Your task to perform on an android device: turn on data saver in the chrome app Image 0: 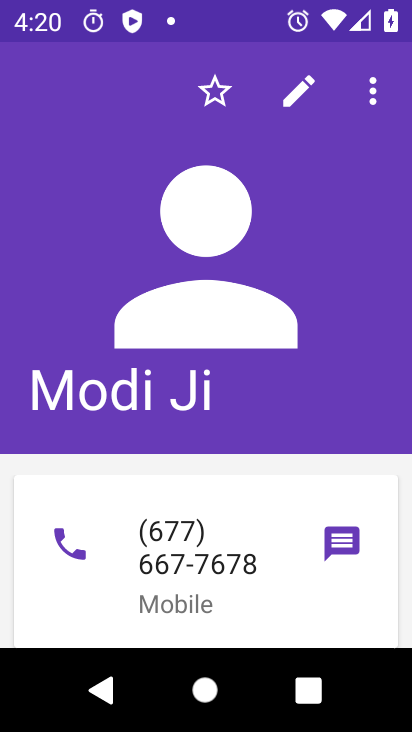
Step 0: press home button
Your task to perform on an android device: turn on data saver in the chrome app Image 1: 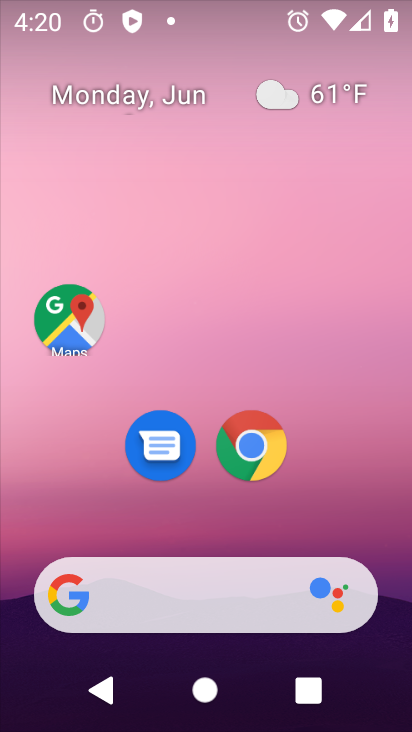
Step 1: click (241, 460)
Your task to perform on an android device: turn on data saver in the chrome app Image 2: 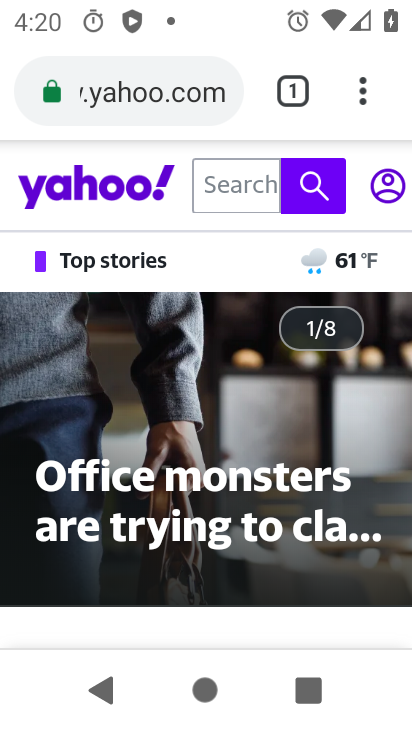
Step 2: click (362, 106)
Your task to perform on an android device: turn on data saver in the chrome app Image 3: 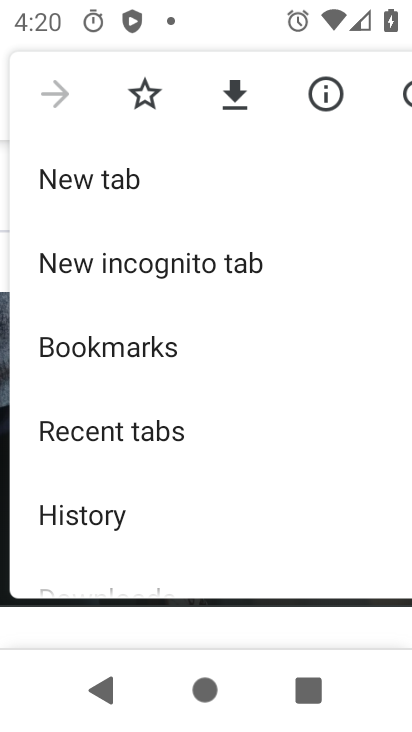
Step 3: drag from (182, 492) to (194, 279)
Your task to perform on an android device: turn on data saver in the chrome app Image 4: 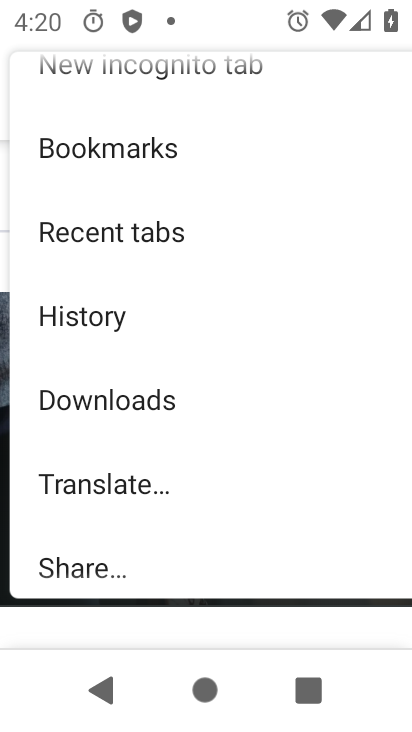
Step 4: drag from (120, 525) to (152, 286)
Your task to perform on an android device: turn on data saver in the chrome app Image 5: 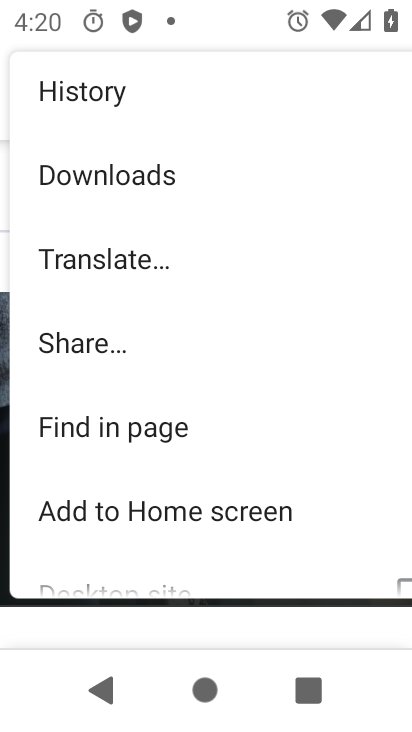
Step 5: drag from (137, 472) to (166, 290)
Your task to perform on an android device: turn on data saver in the chrome app Image 6: 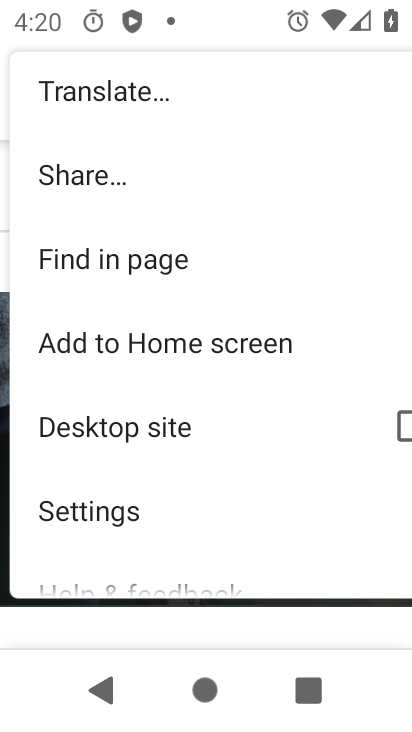
Step 6: click (136, 526)
Your task to perform on an android device: turn on data saver in the chrome app Image 7: 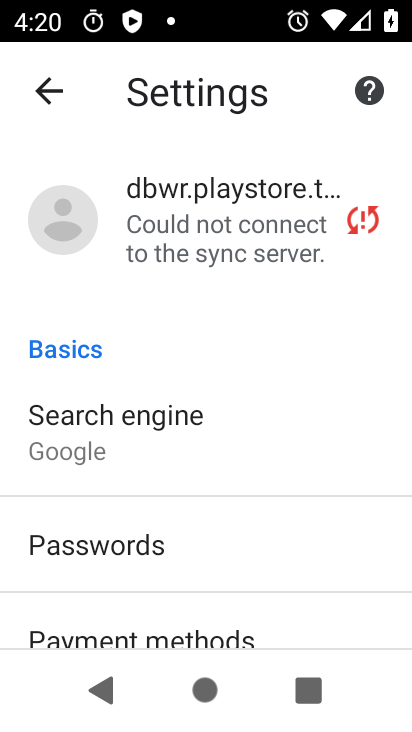
Step 7: drag from (177, 581) to (285, 190)
Your task to perform on an android device: turn on data saver in the chrome app Image 8: 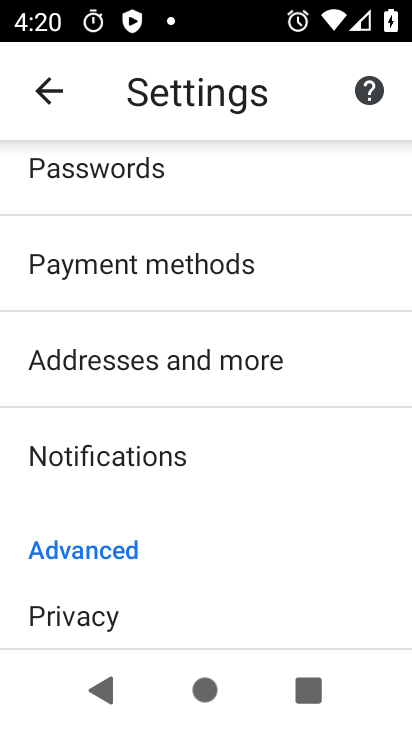
Step 8: drag from (213, 486) to (272, 7)
Your task to perform on an android device: turn on data saver in the chrome app Image 9: 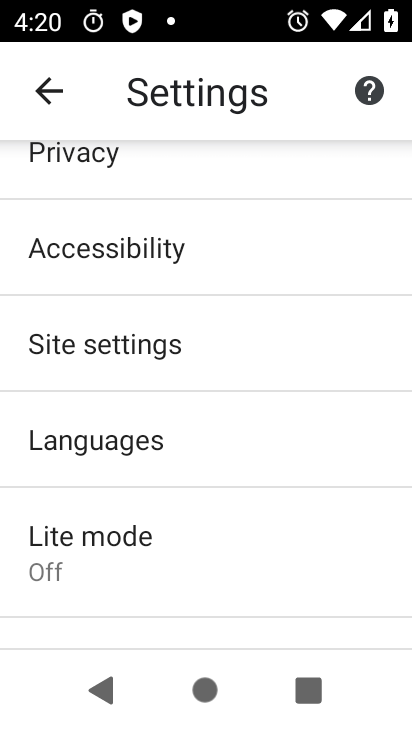
Step 9: click (127, 346)
Your task to perform on an android device: turn on data saver in the chrome app Image 10: 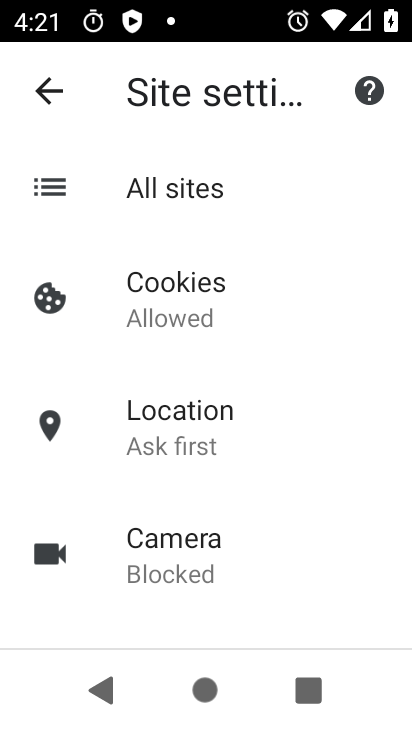
Step 10: click (47, 105)
Your task to perform on an android device: turn on data saver in the chrome app Image 11: 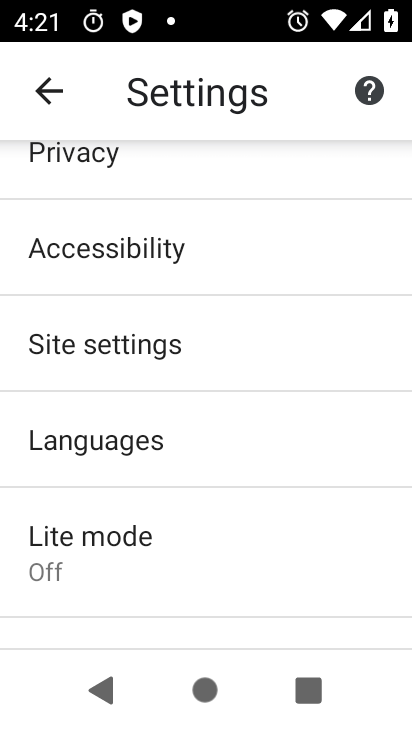
Step 11: click (128, 555)
Your task to perform on an android device: turn on data saver in the chrome app Image 12: 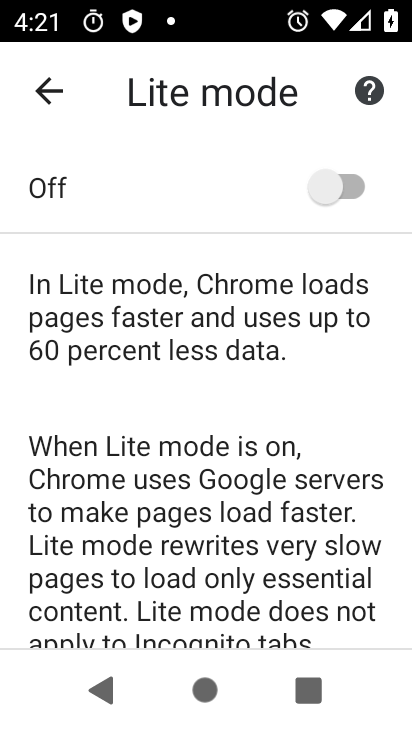
Step 12: click (352, 188)
Your task to perform on an android device: turn on data saver in the chrome app Image 13: 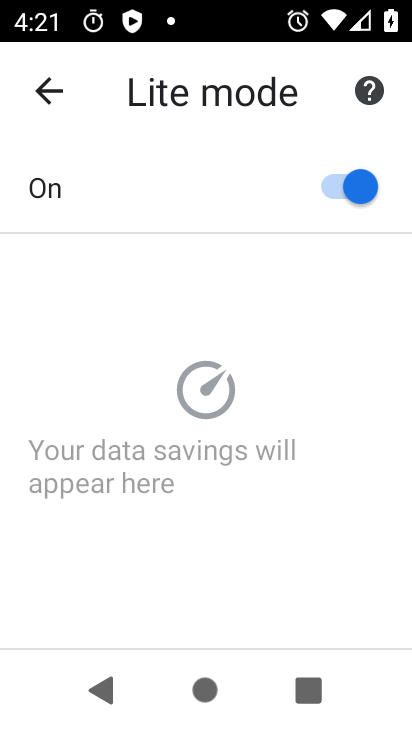
Step 13: task complete